Your task to perform on an android device: open the mobile data screen to see how much data has been used Image 0: 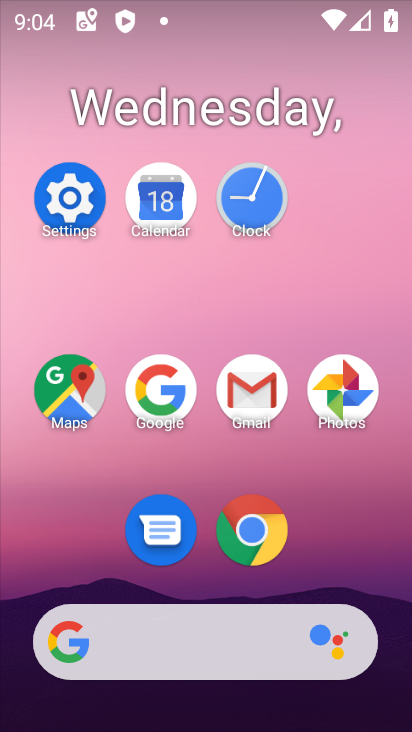
Step 0: click (80, 190)
Your task to perform on an android device: open the mobile data screen to see how much data has been used Image 1: 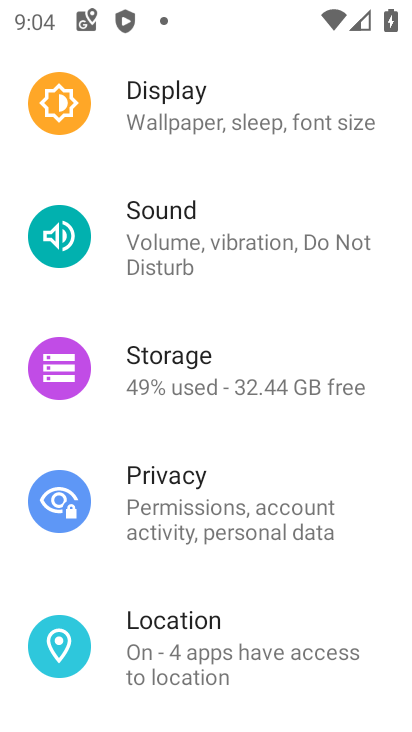
Step 1: drag from (298, 182) to (345, 506)
Your task to perform on an android device: open the mobile data screen to see how much data has been used Image 2: 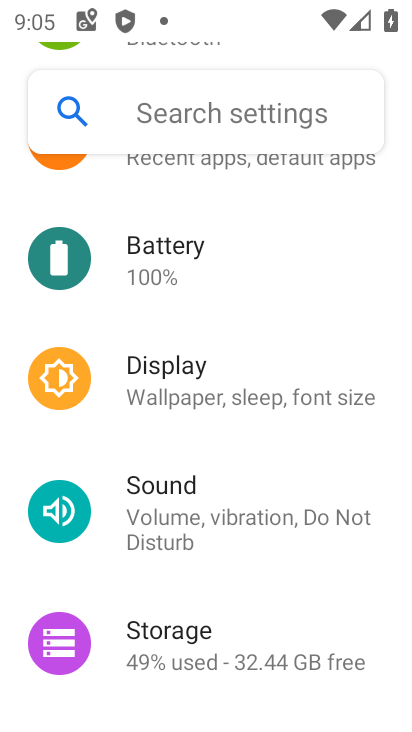
Step 2: drag from (323, 235) to (294, 572)
Your task to perform on an android device: open the mobile data screen to see how much data has been used Image 3: 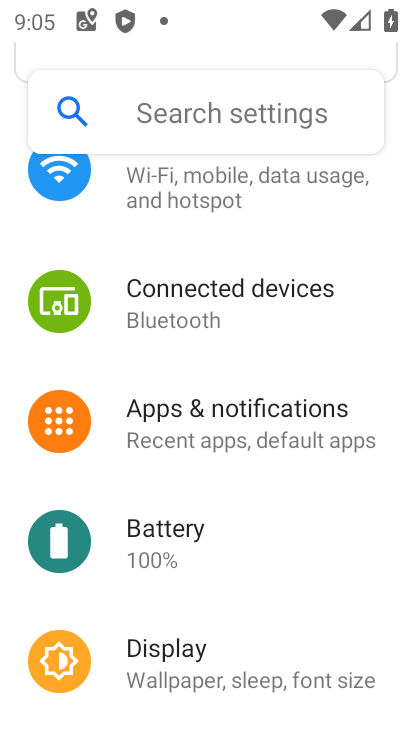
Step 3: drag from (310, 233) to (356, 513)
Your task to perform on an android device: open the mobile data screen to see how much data has been used Image 4: 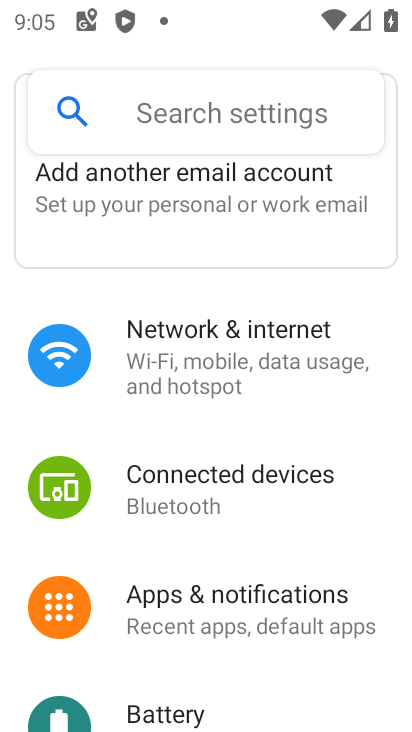
Step 4: click (288, 344)
Your task to perform on an android device: open the mobile data screen to see how much data has been used Image 5: 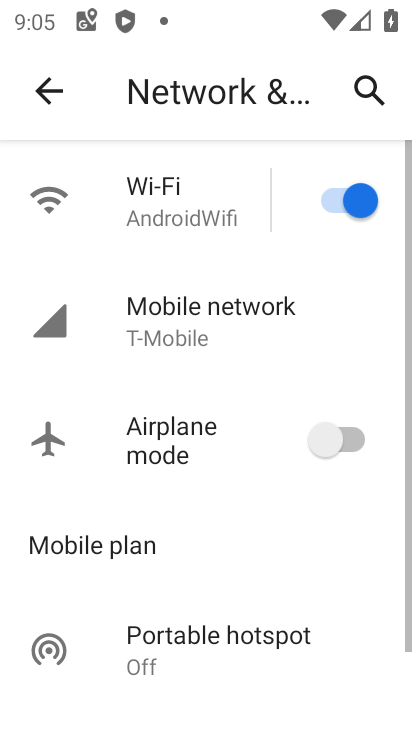
Step 5: click (288, 344)
Your task to perform on an android device: open the mobile data screen to see how much data has been used Image 6: 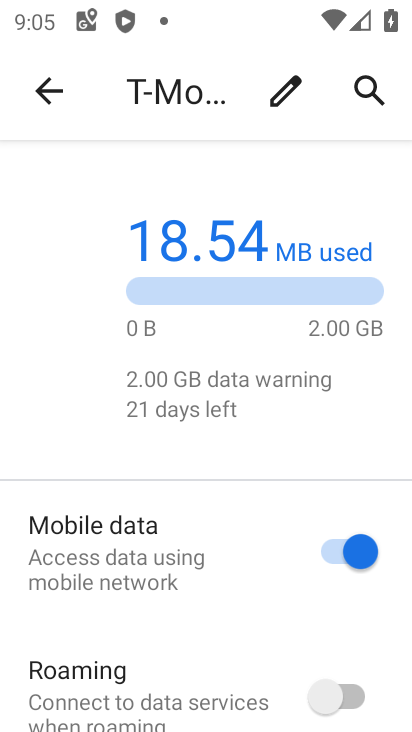
Step 6: task complete